Your task to perform on an android device: open app "Duolingo: language lessons" (install if not already installed), go to login, and select forgot password Image 0: 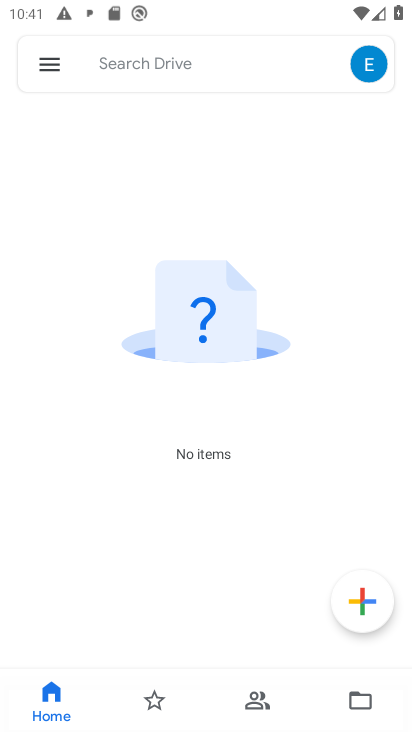
Step 0: press back button
Your task to perform on an android device: open app "Duolingo: language lessons" (install if not already installed), go to login, and select forgot password Image 1: 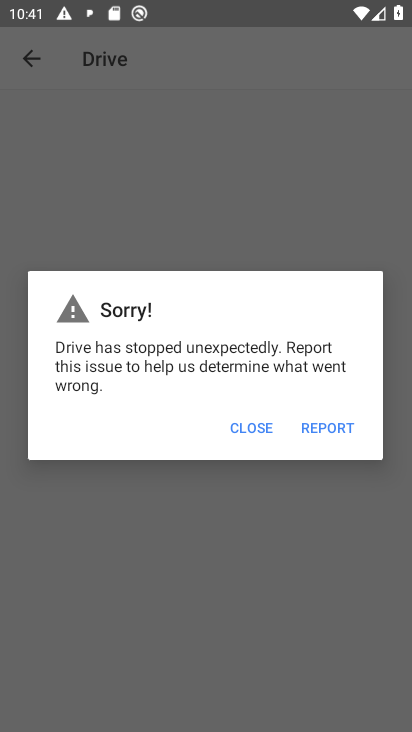
Step 1: press home button
Your task to perform on an android device: open app "Duolingo: language lessons" (install if not already installed), go to login, and select forgot password Image 2: 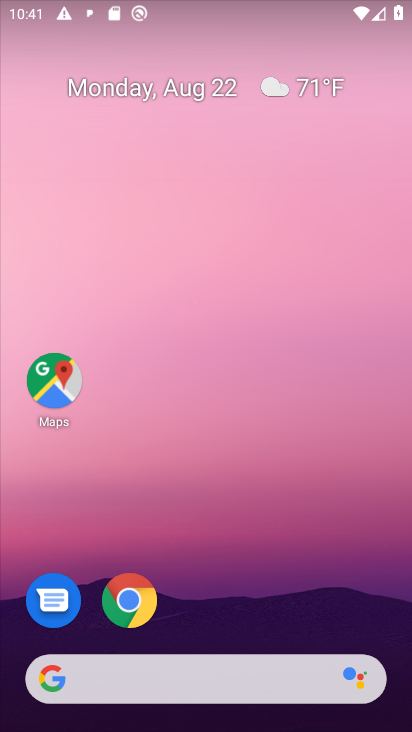
Step 2: drag from (207, 558) to (163, 154)
Your task to perform on an android device: open app "Duolingo: language lessons" (install if not already installed), go to login, and select forgot password Image 3: 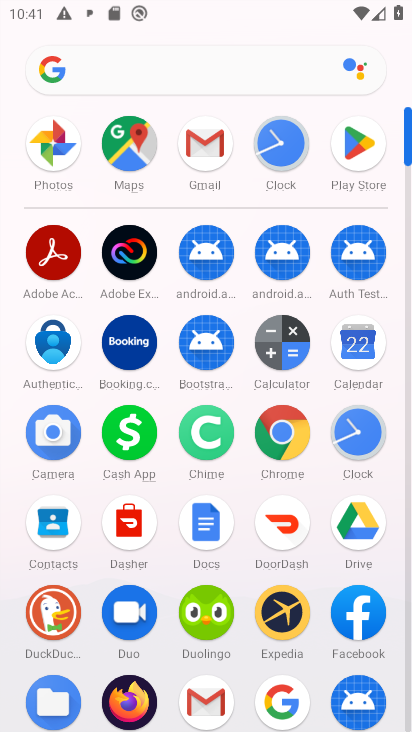
Step 3: click (343, 138)
Your task to perform on an android device: open app "Duolingo: language lessons" (install if not already installed), go to login, and select forgot password Image 4: 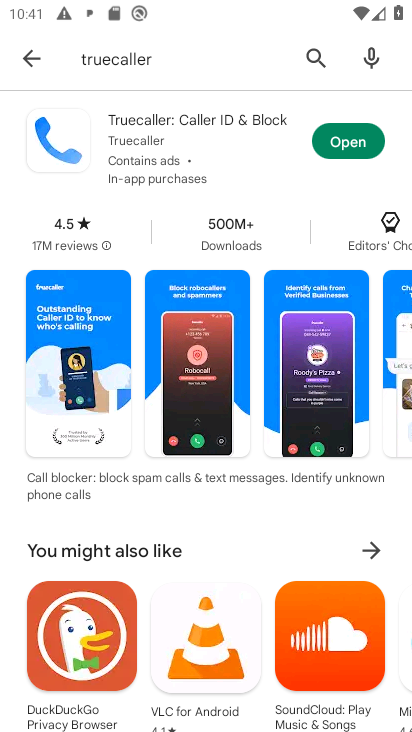
Step 4: click (312, 51)
Your task to perform on an android device: open app "Duolingo: language lessons" (install if not already installed), go to login, and select forgot password Image 5: 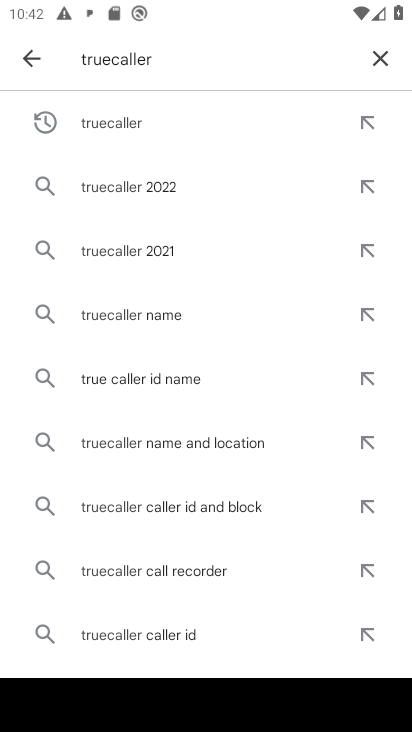
Step 5: click (376, 43)
Your task to perform on an android device: open app "Duolingo: language lessons" (install if not already installed), go to login, and select forgot password Image 6: 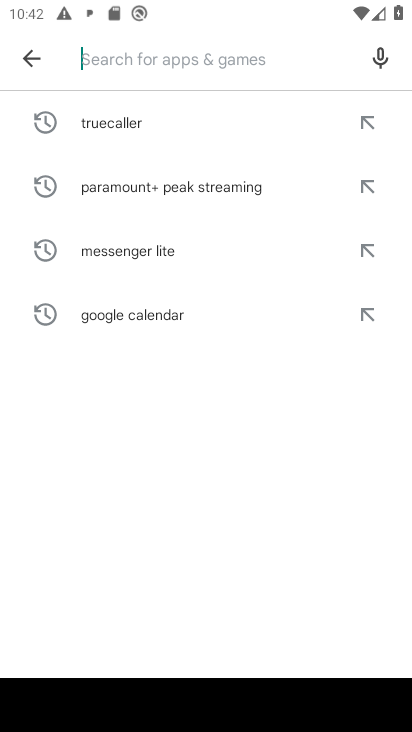
Step 6: type "Duolingo: language lessons"
Your task to perform on an android device: open app "Duolingo: language lessons" (install if not already installed), go to login, and select forgot password Image 7: 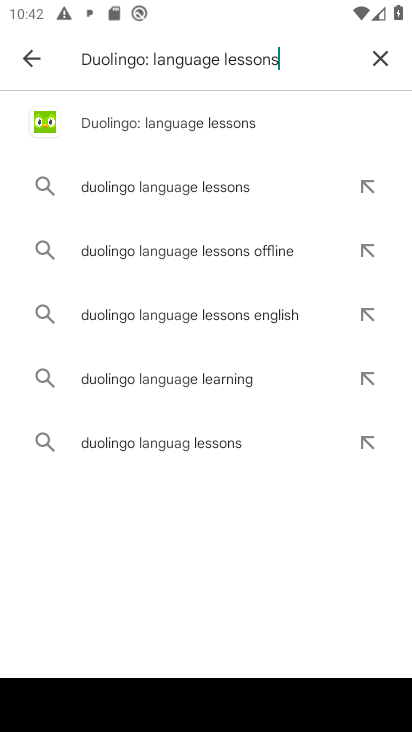
Step 7: type ""
Your task to perform on an android device: open app "Duolingo: language lessons" (install if not already installed), go to login, and select forgot password Image 8: 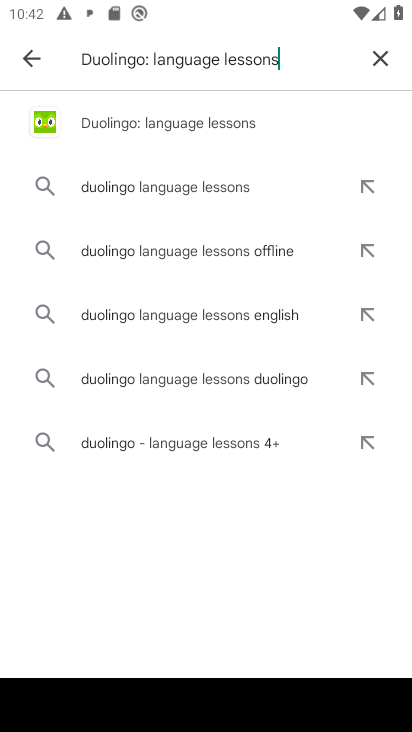
Step 8: click (181, 127)
Your task to perform on an android device: open app "Duolingo: language lessons" (install if not already installed), go to login, and select forgot password Image 9: 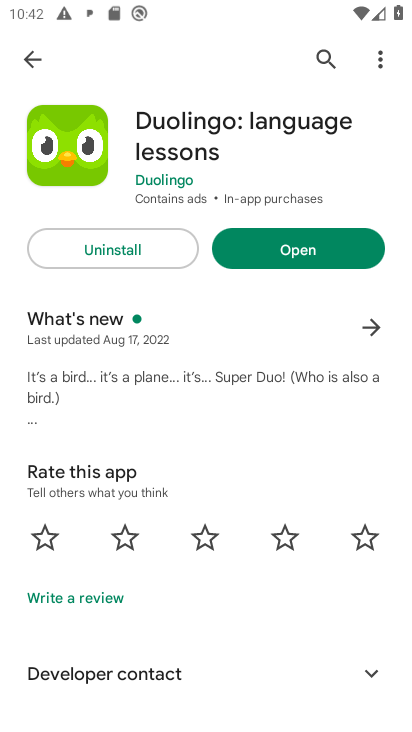
Step 9: click (346, 237)
Your task to perform on an android device: open app "Duolingo: language lessons" (install if not already installed), go to login, and select forgot password Image 10: 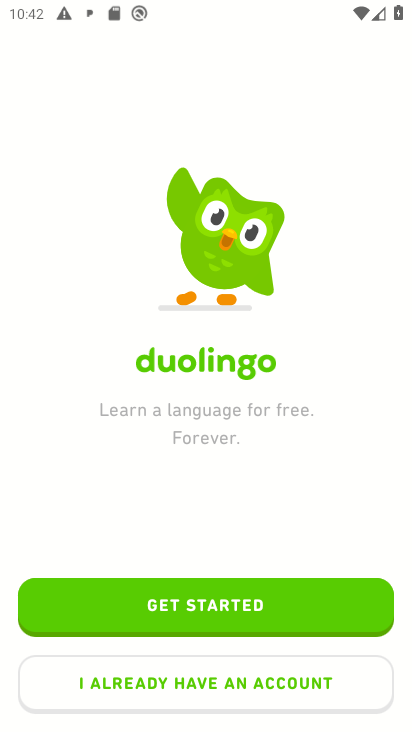
Step 10: task complete